Your task to perform on an android device: show emergency info Image 0: 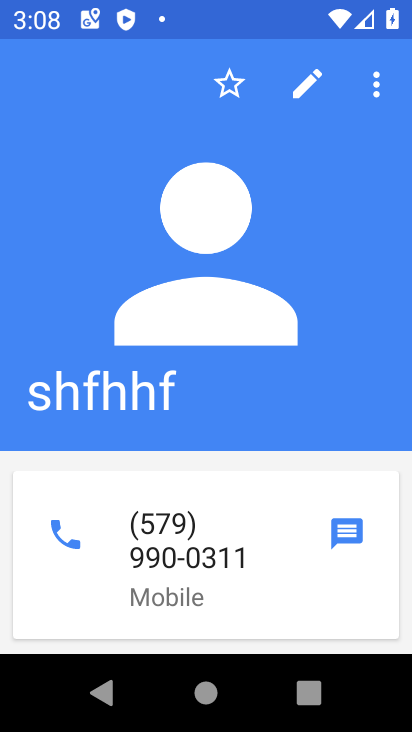
Step 0: press home button
Your task to perform on an android device: show emergency info Image 1: 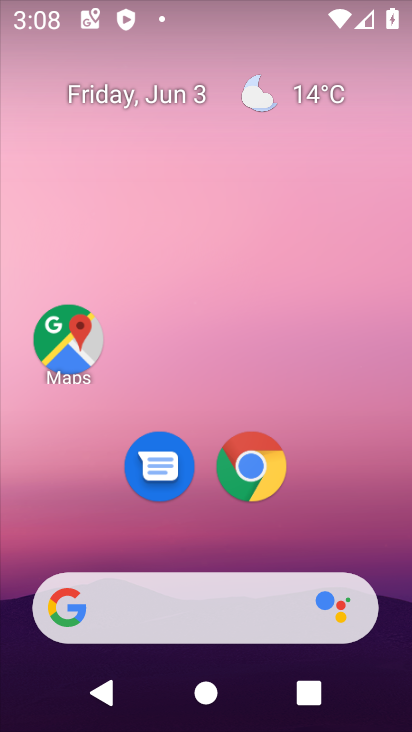
Step 1: drag from (371, 456) to (340, 58)
Your task to perform on an android device: show emergency info Image 2: 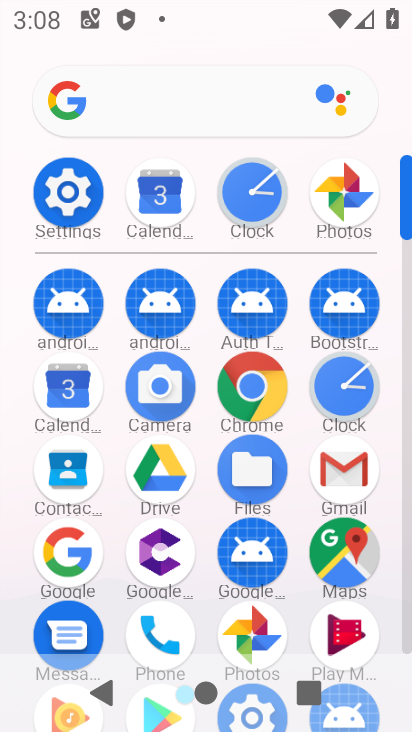
Step 2: click (54, 182)
Your task to perform on an android device: show emergency info Image 3: 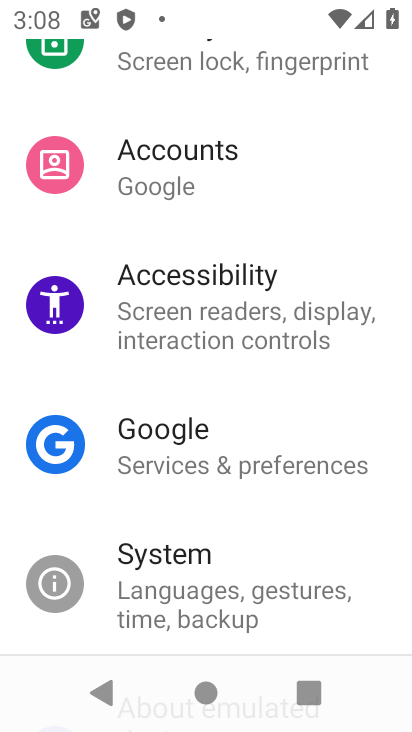
Step 3: drag from (272, 156) to (340, 557)
Your task to perform on an android device: show emergency info Image 4: 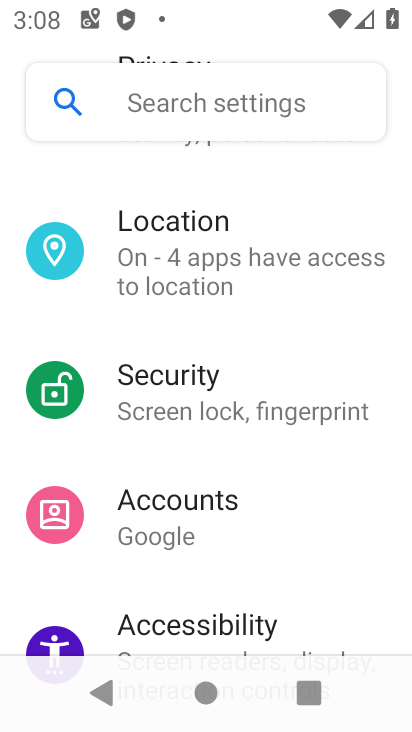
Step 4: drag from (348, 509) to (382, 267)
Your task to perform on an android device: show emergency info Image 5: 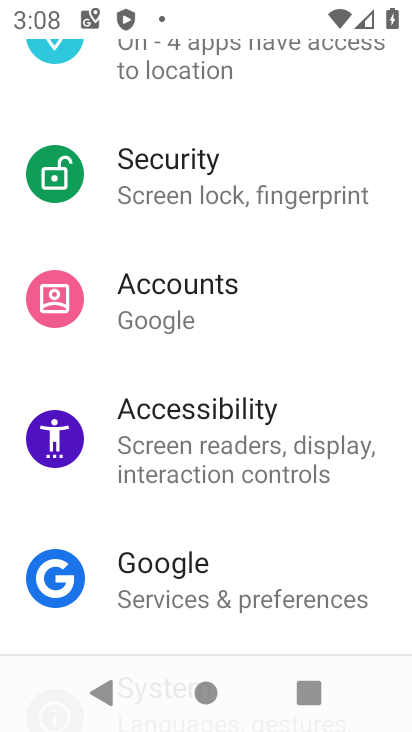
Step 5: drag from (291, 415) to (301, 281)
Your task to perform on an android device: show emergency info Image 6: 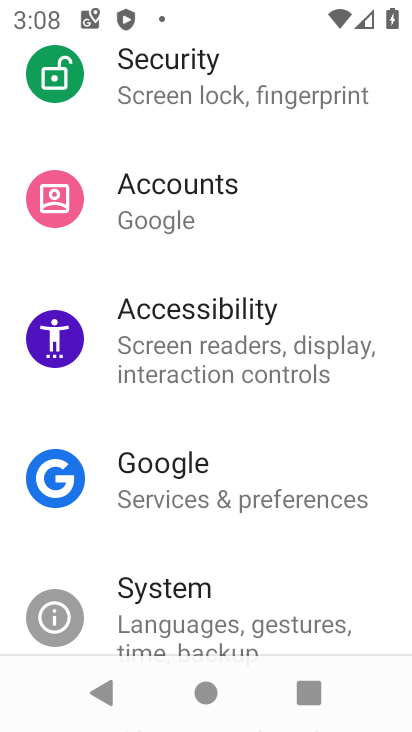
Step 6: drag from (221, 527) to (215, 280)
Your task to perform on an android device: show emergency info Image 7: 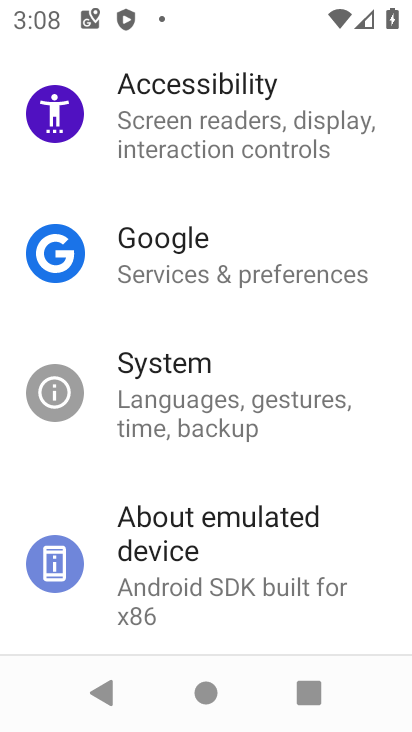
Step 7: drag from (263, 576) to (257, 237)
Your task to perform on an android device: show emergency info Image 8: 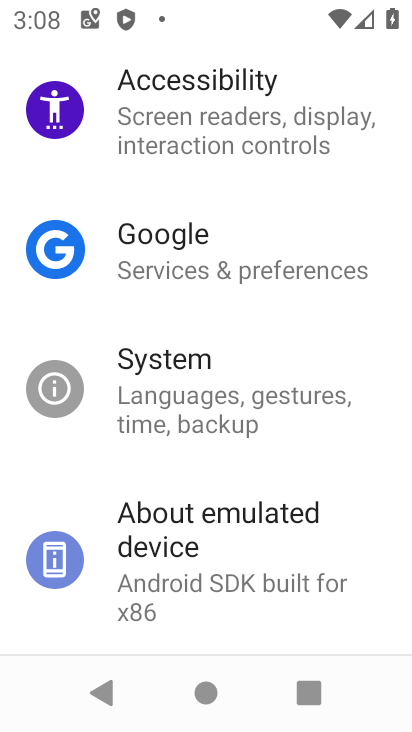
Step 8: click (260, 536)
Your task to perform on an android device: show emergency info Image 9: 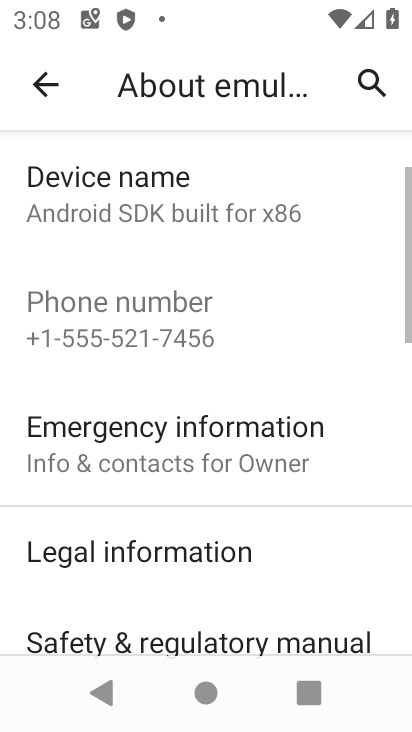
Step 9: click (240, 457)
Your task to perform on an android device: show emergency info Image 10: 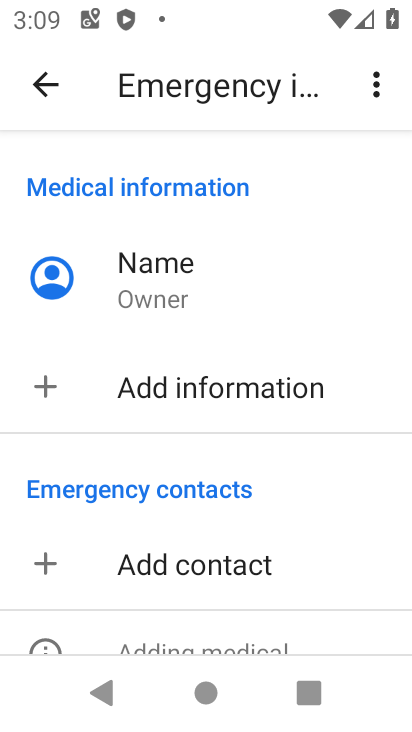
Step 10: task complete